Your task to perform on an android device: Go to settings Image 0: 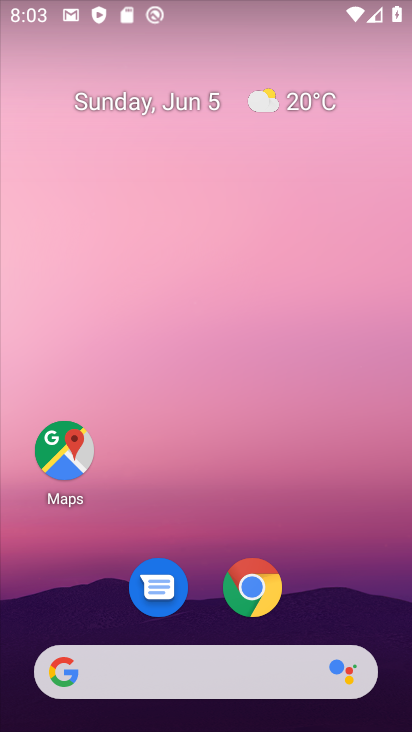
Step 0: drag from (189, 557) to (184, 306)
Your task to perform on an android device: Go to settings Image 1: 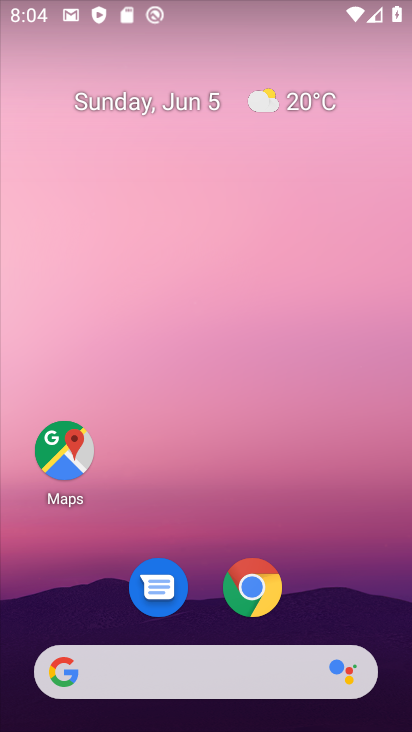
Step 1: drag from (206, 523) to (258, 262)
Your task to perform on an android device: Go to settings Image 2: 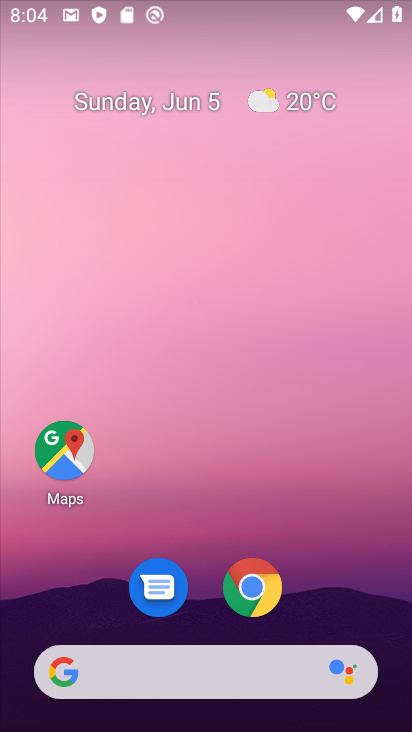
Step 2: drag from (210, 585) to (310, 118)
Your task to perform on an android device: Go to settings Image 3: 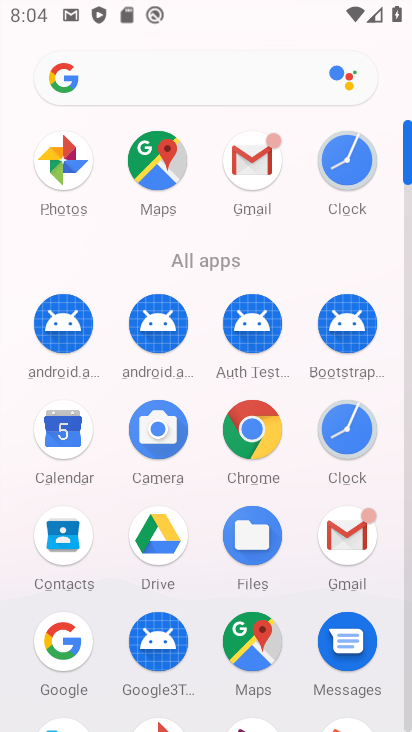
Step 3: drag from (274, 434) to (299, 238)
Your task to perform on an android device: Go to settings Image 4: 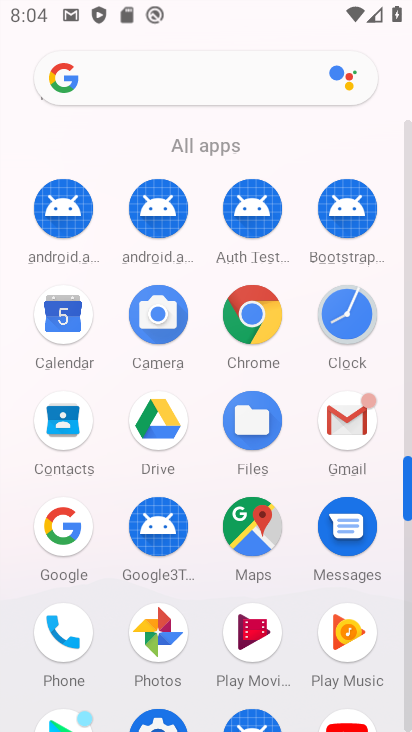
Step 4: drag from (233, 498) to (321, 169)
Your task to perform on an android device: Go to settings Image 5: 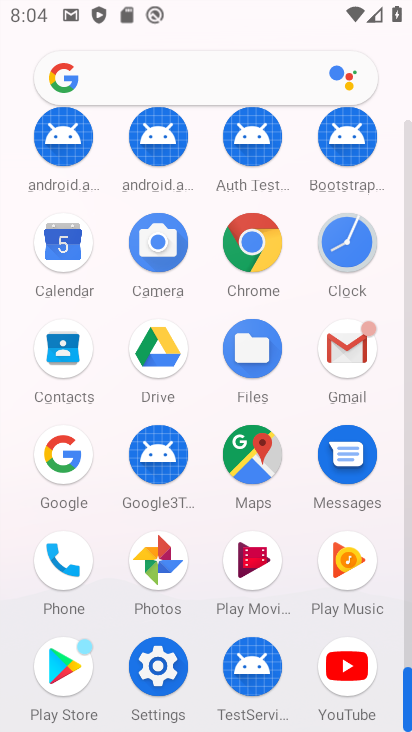
Step 5: drag from (261, 498) to (296, 346)
Your task to perform on an android device: Go to settings Image 6: 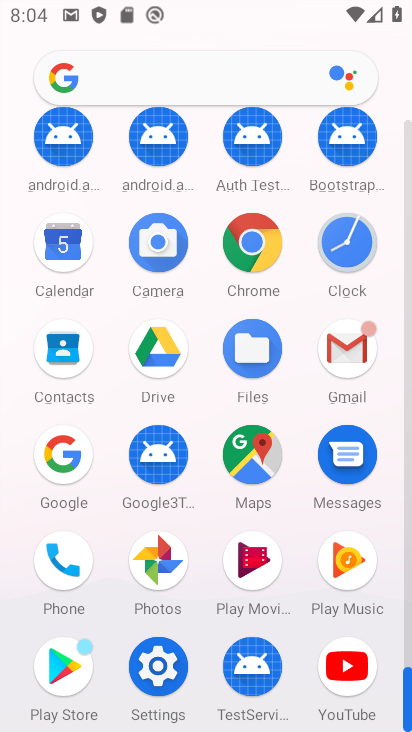
Step 6: click (164, 676)
Your task to perform on an android device: Go to settings Image 7: 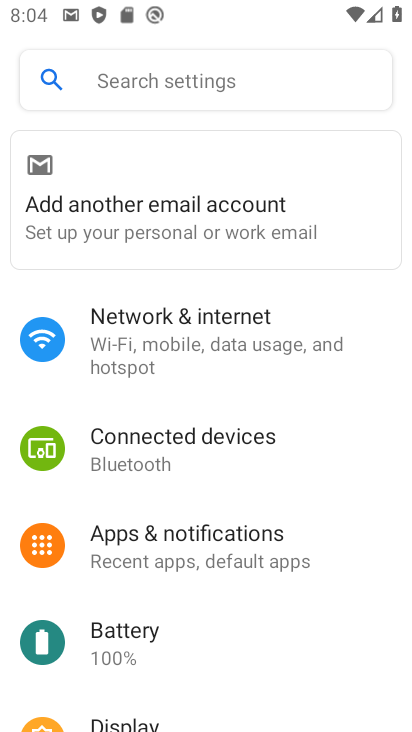
Step 7: task complete